Your task to perform on an android device: turn on the 12-hour format for clock Image 0: 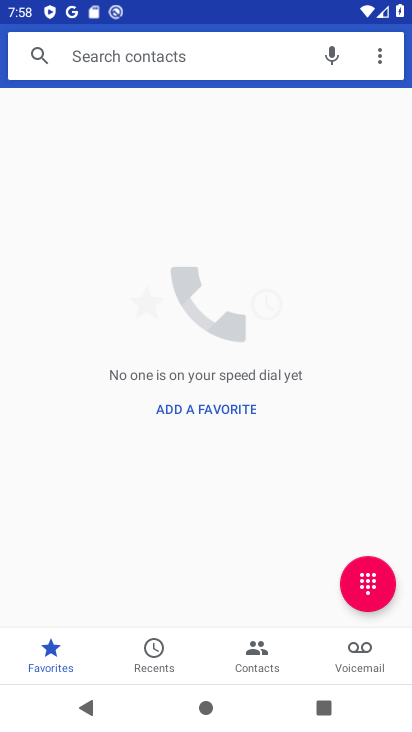
Step 0: press home button
Your task to perform on an android device: turn on the 12-hour format for clock Image 1: 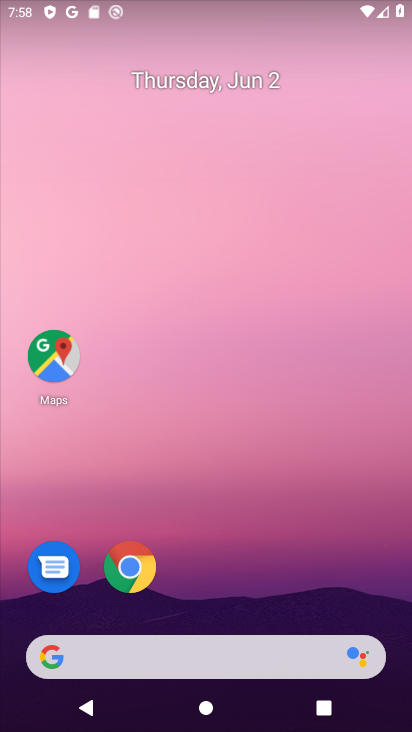
Step 1: drag from (317, 523) to (224, 282)
Your task to perform on an android device: turn on the 12-hour format for clock Image 2: 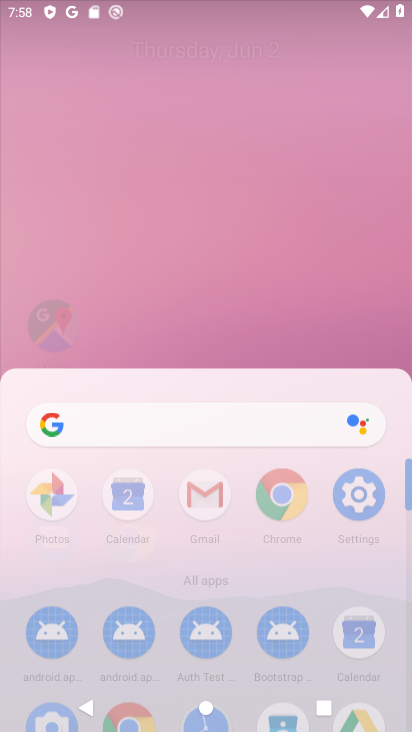
Step 2: click (185, 153)
Your task to perform on an android device: turn on the 12-hour format for clock Image 3: 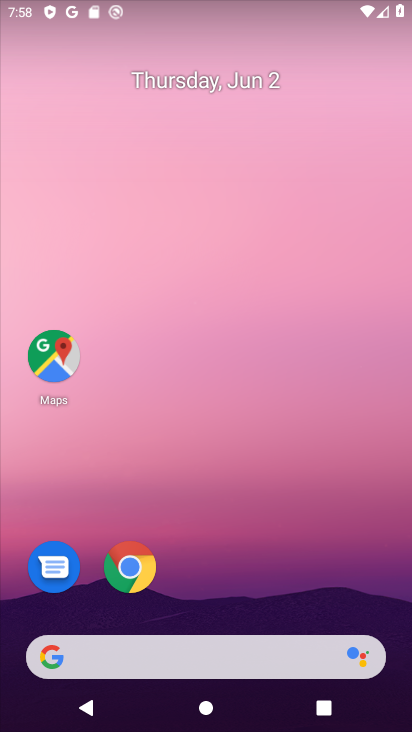
Step 3: drag from (235, 519) to (241, 80)
Your task to perform on an android device: turn on the 12-hour format for clock Image 4: 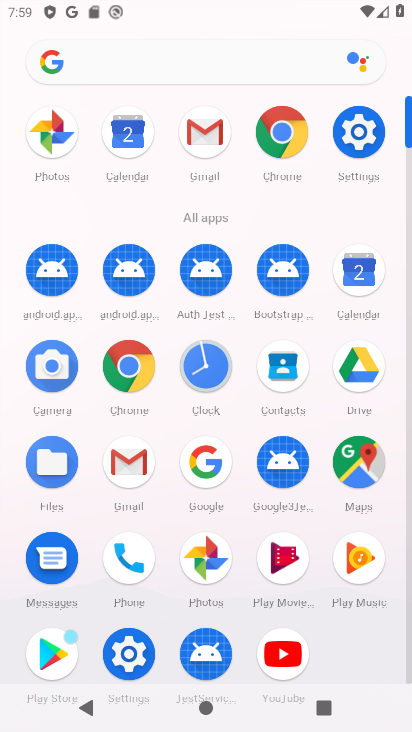
Step 4: click (210, 355)
Your task to perform on an android device: turn on the 12-hour format for clock Image 5: 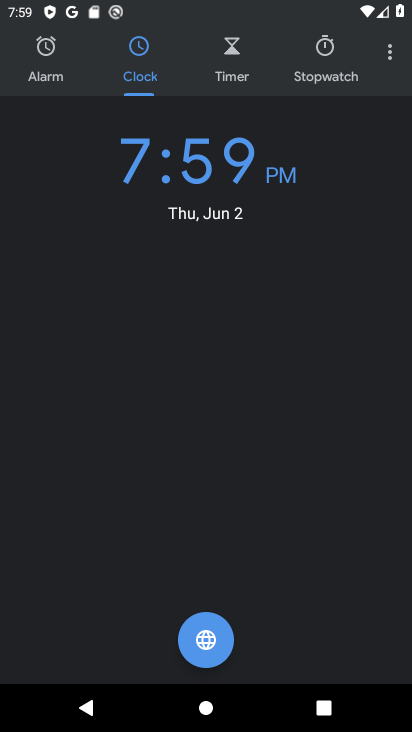
Step 5: click (395, 50)
Your task to perform on an android device: turn on the 12-hour format for clock Image 6: 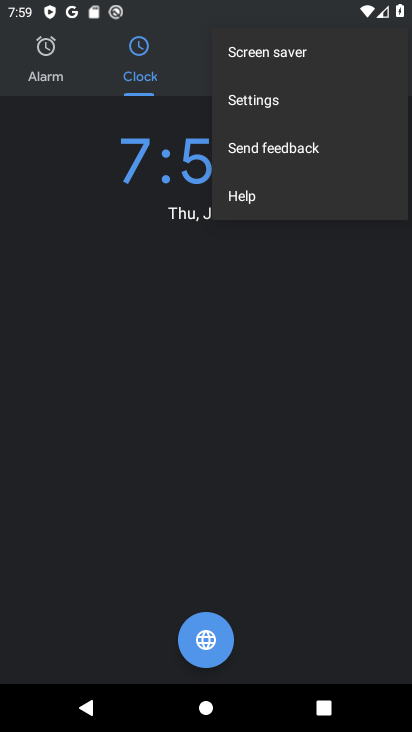
Step 6: click (276, 97)
Your task to perform on an android device: turn on the 12-hour format for clock Image 7: 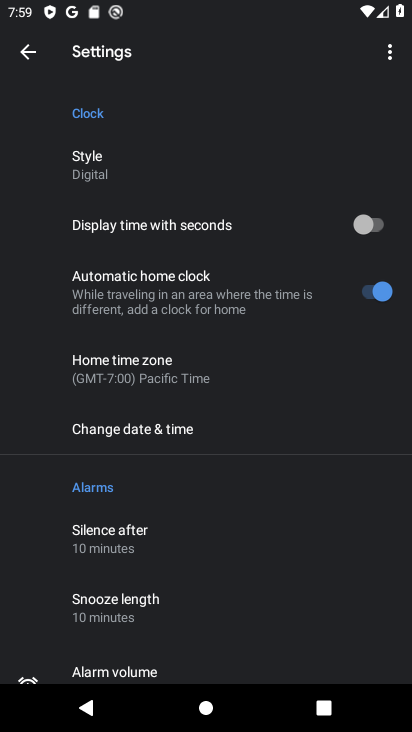
Step 7: click (175, 537)
Your task to perform on an android device: turn on the 12-hour format for clock Image 8: 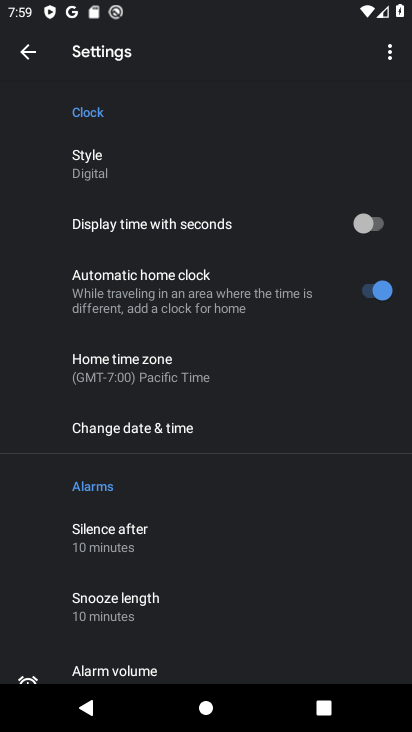
Step 8: click (155, 407)
Your task to perform on an android device: turn on the 12-hour format for clock Image 9: 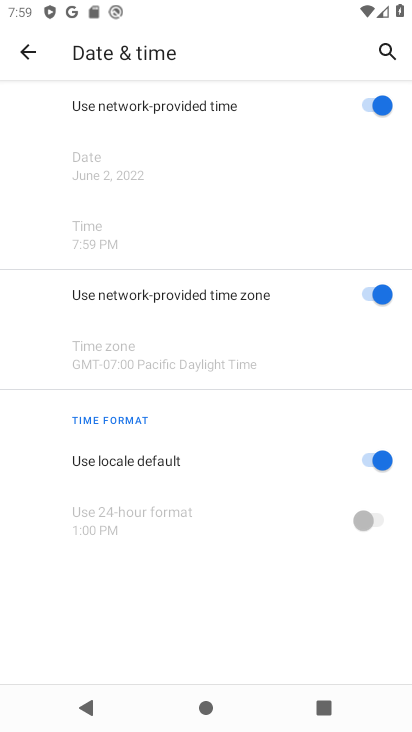
Step 9: task complete